Your task to perform on an android device: Open Youtube and go to "Your channel" Image 0: 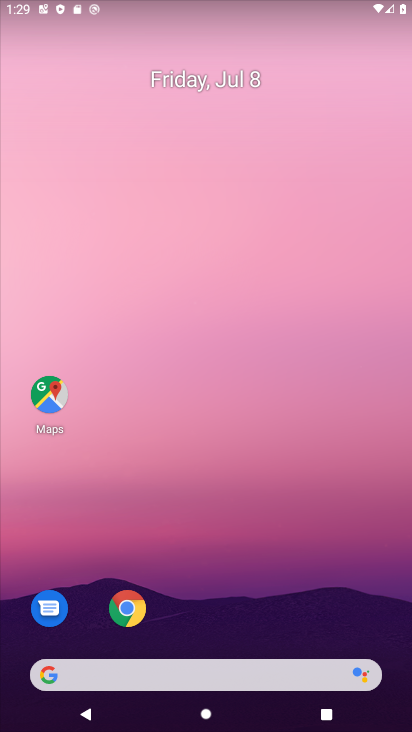
Step 0: drag from (209, 653) to (302, 101)
Your task to perform on an android device: Open Youtube and go to "Your channel" Image 1: 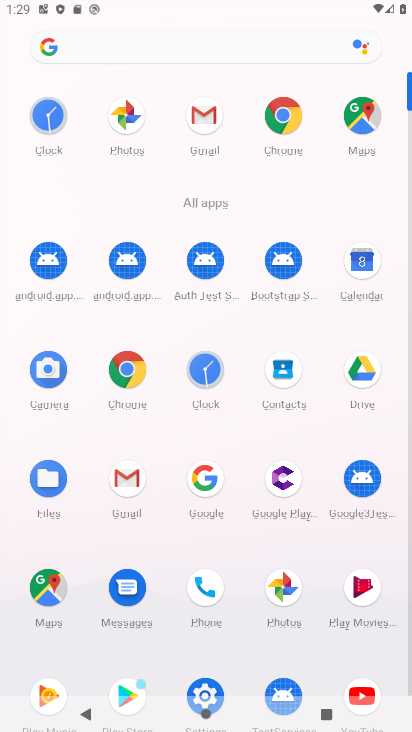
Step 1: click (351, 689)
Your task to perform on an android device: Open Youtube and go to "Your channel" Image 2: 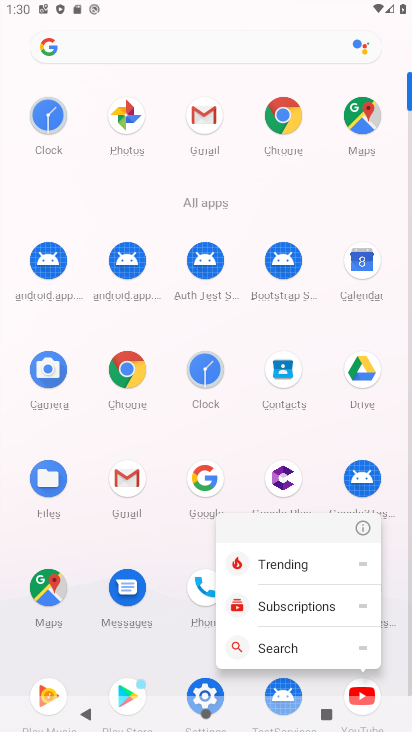
Step 2: click (355, 685)
Your task to perform on an android device: Open Youtube and go to "Your channel" Image 3: 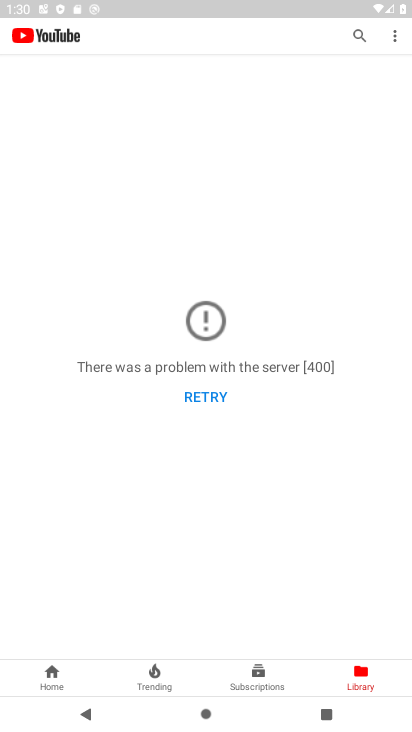
Step 3: task complete